Your task to perform on an android device: open a new tab in the chrome app Image 0: 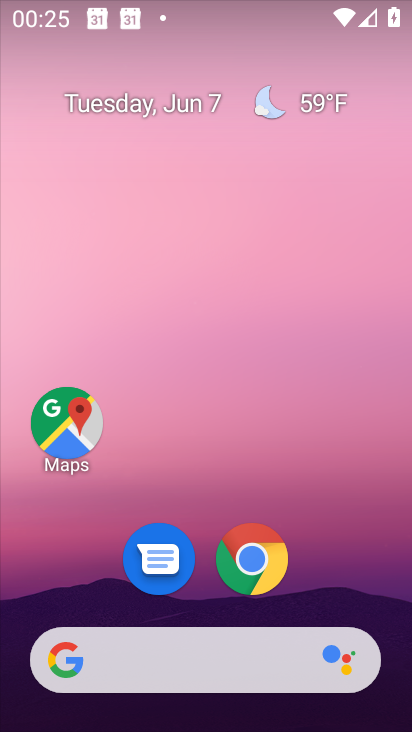
Step 0: click (270, 555)
Your task to perform on an android device: open a new tab in the chrome app Image 1: 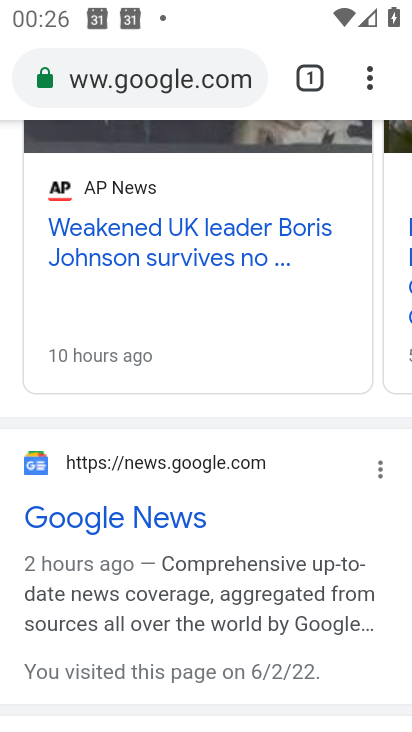
Step 1: click (368, 72)
Your task to perform on an android device: open a new tab in the chrome app Image 2: 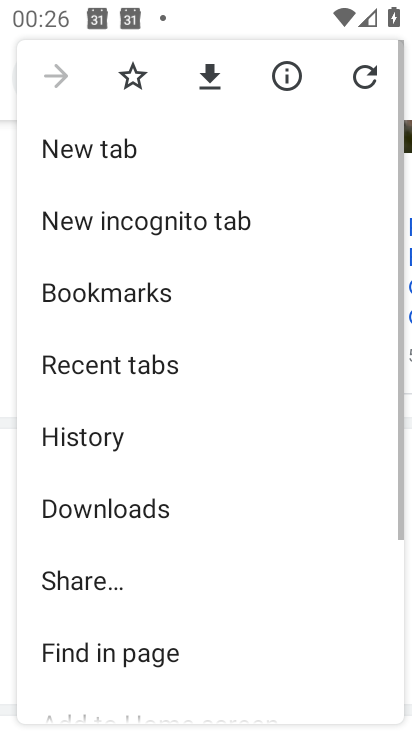
Step 2: click (143, 148)
Your task to perform on an android device: open a new tab in the chrome app Image 3: 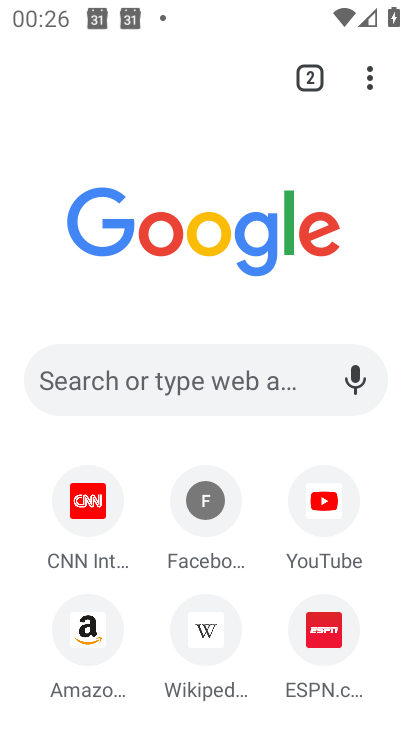
Step 3: task complete